Your task to perform on an android device: Open Chrome and go to settings Image 0: 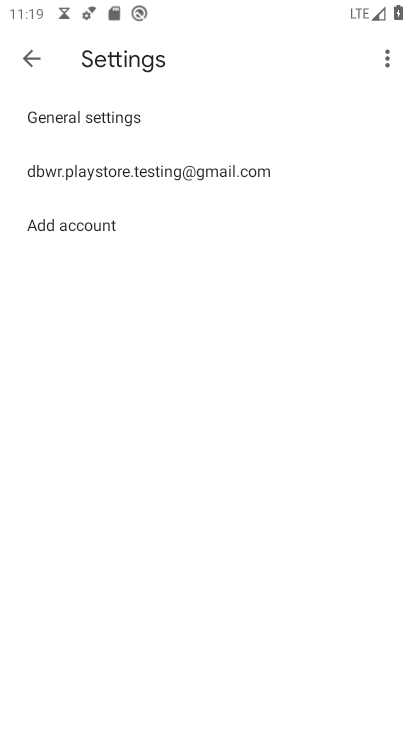
Step 0: press home button
Your task to perform on an android device: Open Chrome and go to settings Image 1: 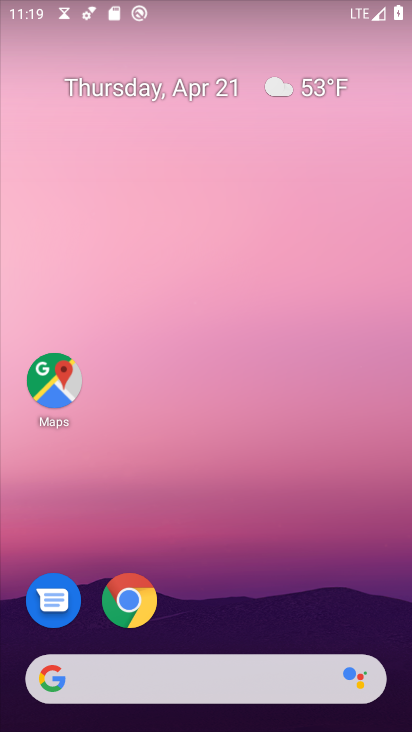
Step 1: click (137, 590)
Your task to perform on an android device: Open Chrome and go to settings Image 2: 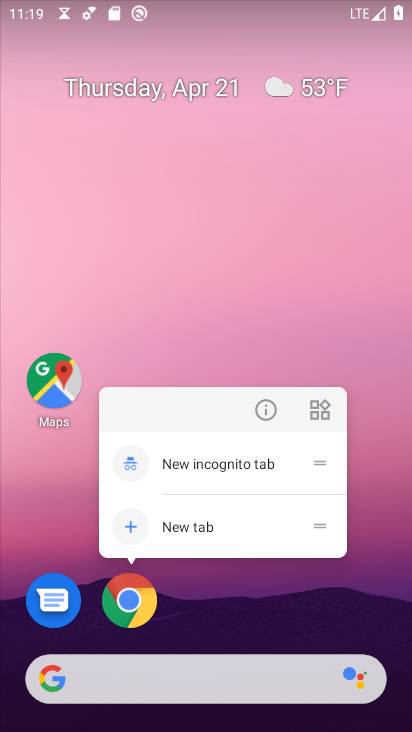
Step 2: click (140, 590)
Your task to perform on an android device: Open Chrome and go to settings Image 3: 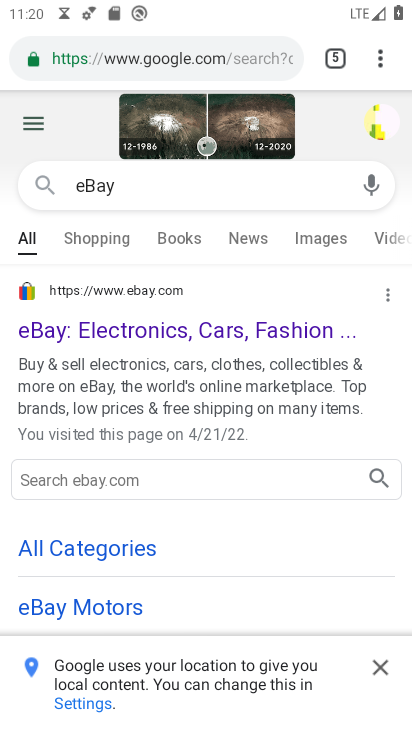
Step 3: click (372, 64)
Your task to perform on an android device: Open Chrome and go to settings Image 4: 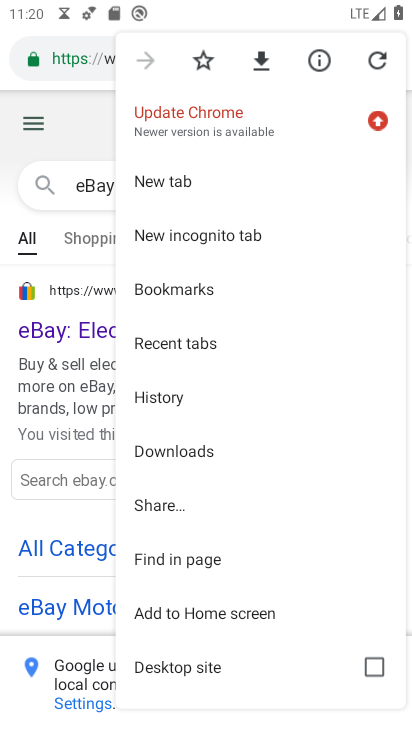
Step 4: drag from (209, 628) to (189, 235)
Your task to perform on an android device: Open Chrome and go to settings Image 5: 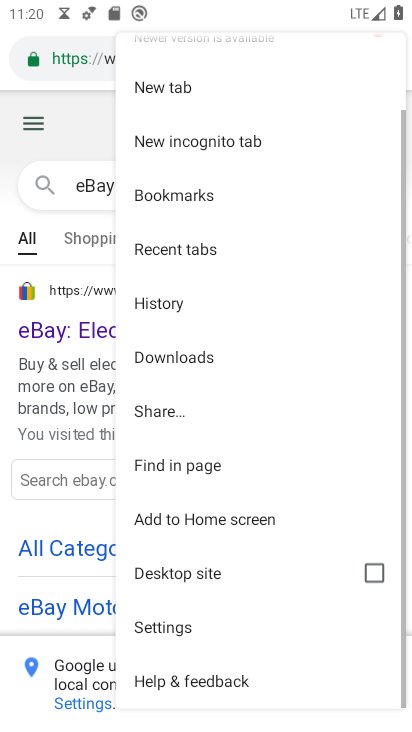
Step 5: click (202, 617)
Your task to perform on an android device: Open Chrome and go to settings Image 6: 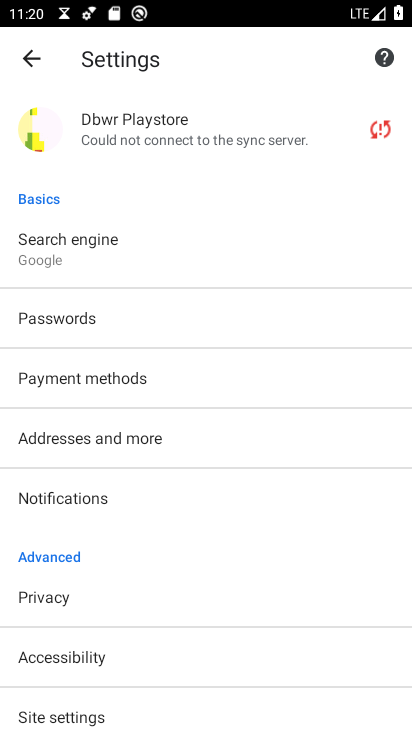
Step 6: task complete